Your task to perform on an android device: Open privacy settings Image 0: 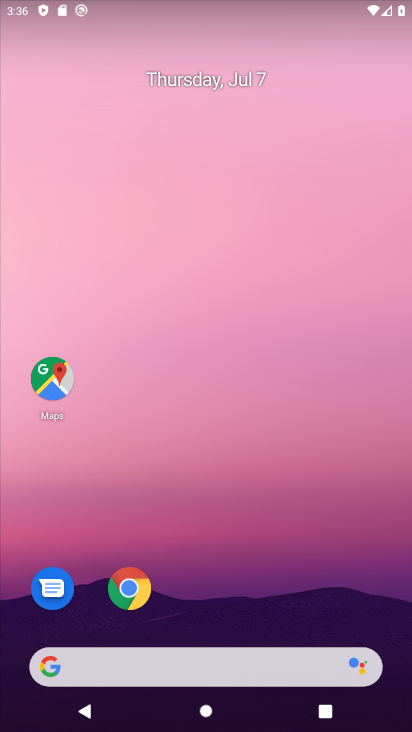
Step 0: drag from (216, 660) to (288, 4)
Your task to perform on an android device: Open privacy settings Image 1: 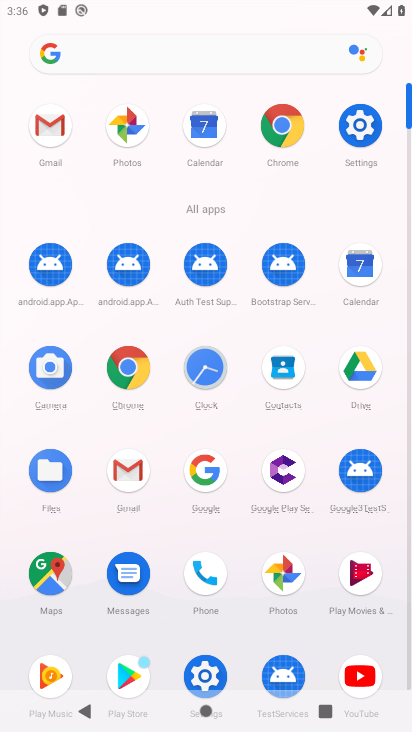
Step 1: click (374, 106)
Your task to perform on an android device: Open privacy settings Image 2: 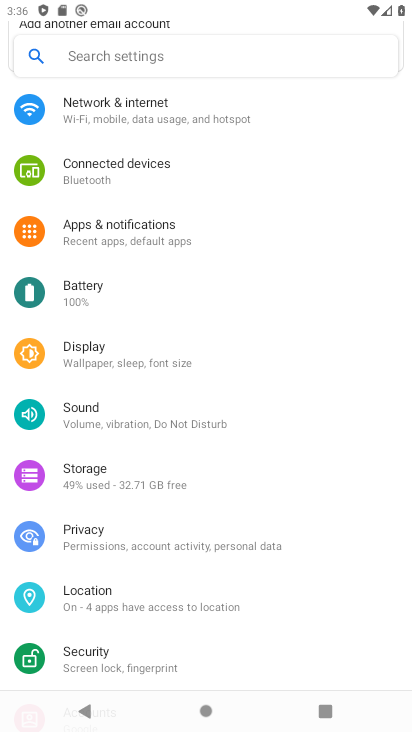
Step 2: click (96, 531)
Your task to perform on an android device: Open privacy settings Image 3: 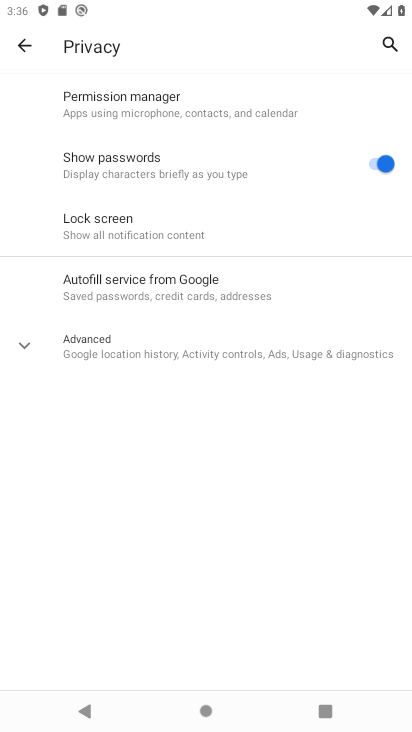
Step 3: task complete